Your task to perform on an android device: turn on translation in the chrome app Image 0: 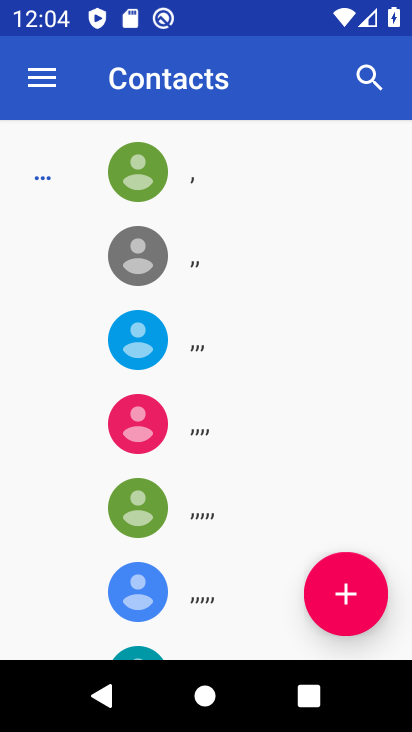
Step 0: press back button
Your task to perform on an android device: turn on translation in the chrome app Image 1: 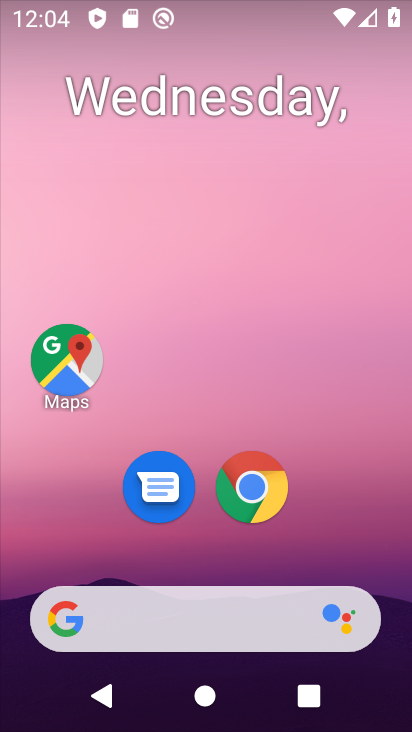
Step 1: click (241, 469)
Your task to perform on an android device: turn on translation in the chrome app Image 2: 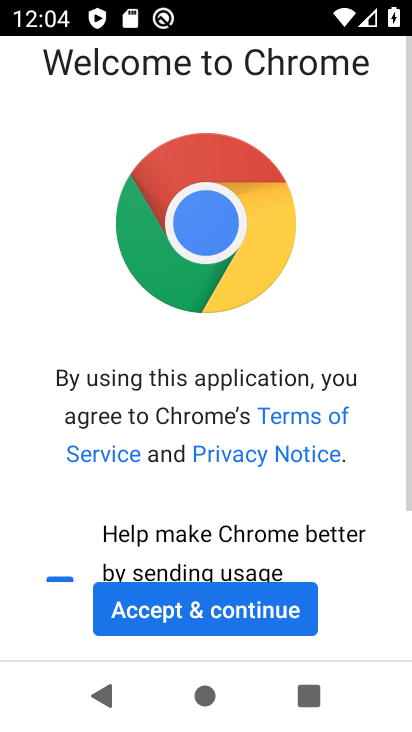
Step 2: click (191, 618)
Your task to perform on an android device: turn on translation in the chrome app Image 3: 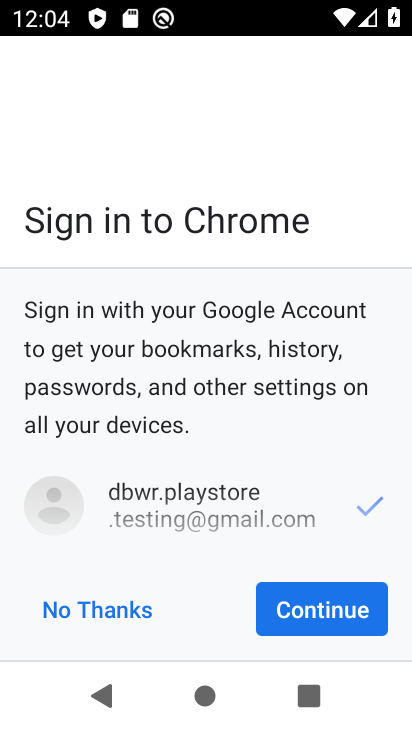
Step 3: click (292, 607)
Your task to perform on an android device: turn on translation in the chrome app Image 4: 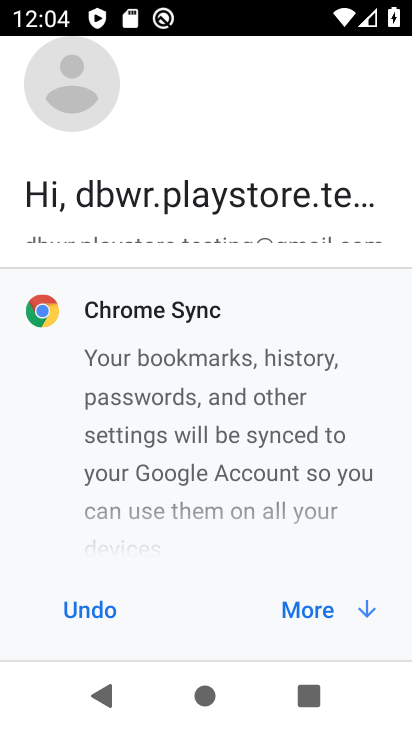
Step 4: click (297, 607)
Your task to perform on an android device: turn on translation in the chrome app Image 5: 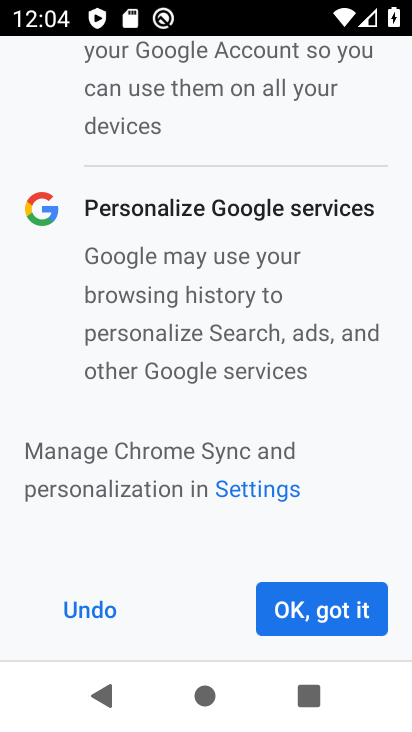
Step 5: click (296, 602)
Your task to perform on an android device: turn on translation in the chrome app Image 6: 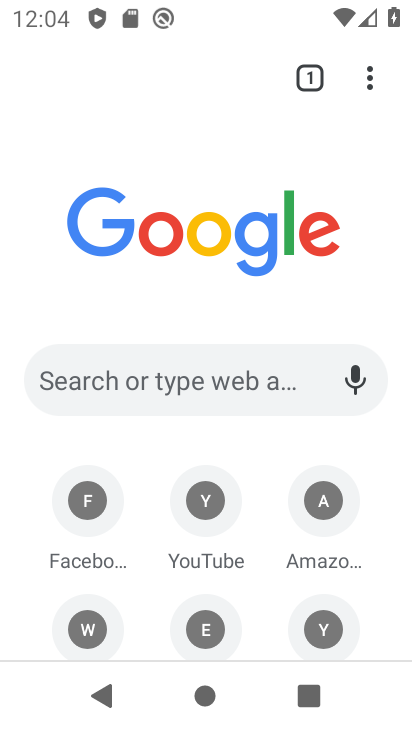
Step 6: drag from (369, 78) to (131, 540)
Your task to perform on an android device: turn on translation in the chrome app Image 7: 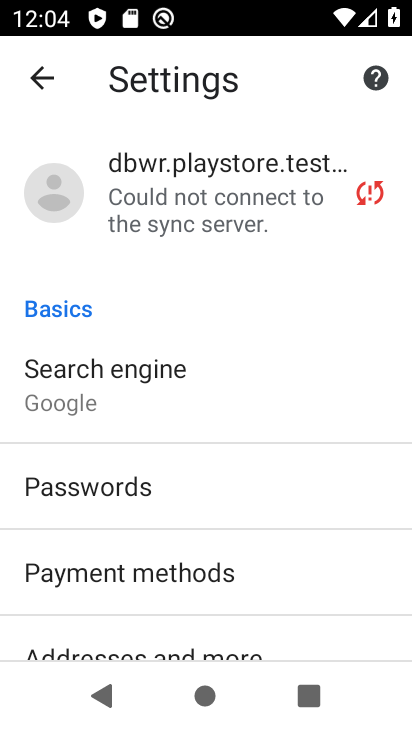
Step 7: drag from (144, 546) to (238, 144)
Your task to perform on an android device: turn on translation in the chrome app Image 8: 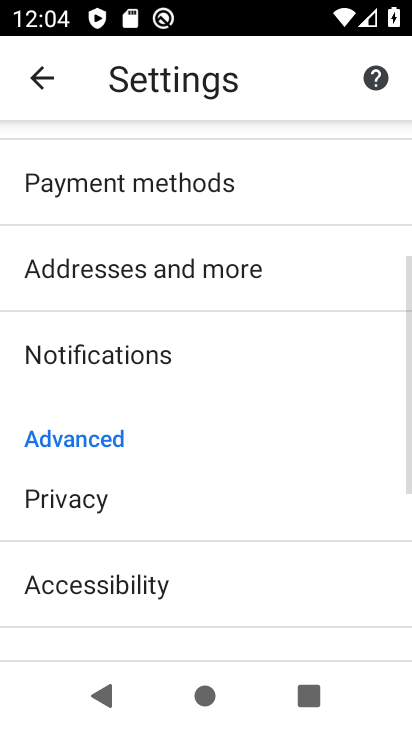
Step 8: drag from (202, 588) to (257, 115)
Your task to perform on an android device: turn on translation in the chrome app Image 9: 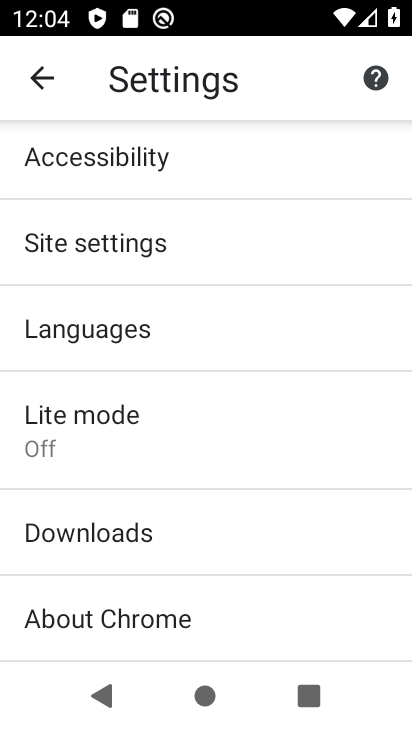
Step 9: click (85, 324)
Your task to perform on an android device: turn on translation in the chrome app Image 10: 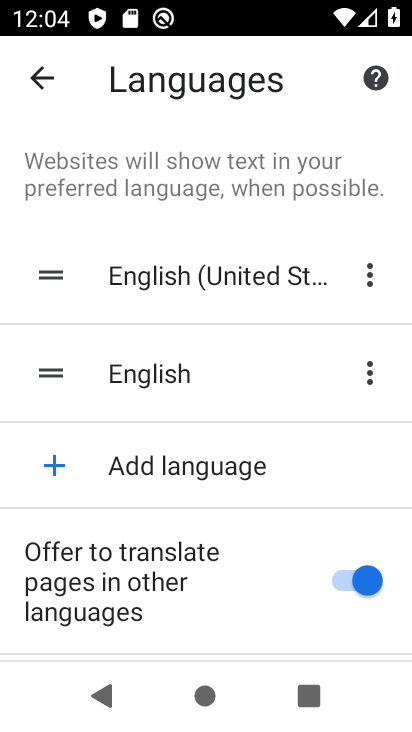
Step 10: task complete